Your task to perform on an android device: Open settings on Google Maps Image 0: 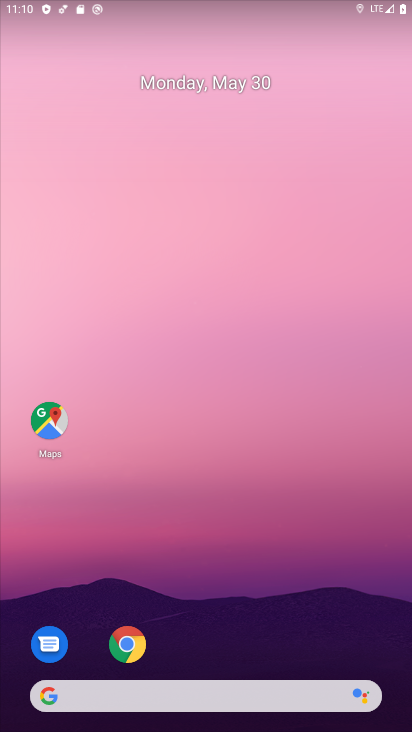
Step 0: press home button
Your task to perform on an android device: Open settings on Google Maps Image 1: 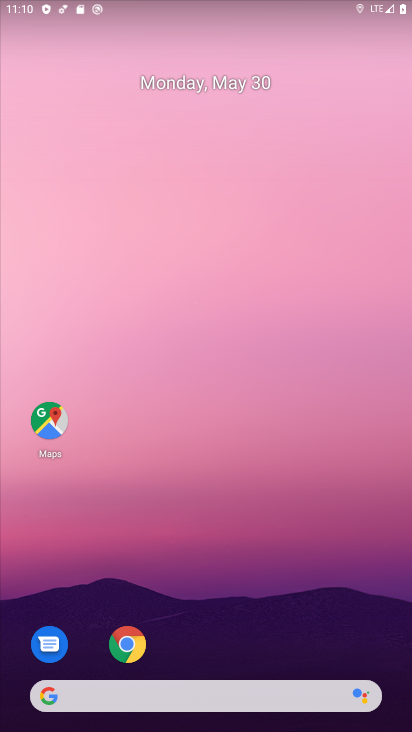
Step 1: drag from (266, 542) to (268, 231)
Your task to perform on an android device: Open settings on Google Maps Image 2: 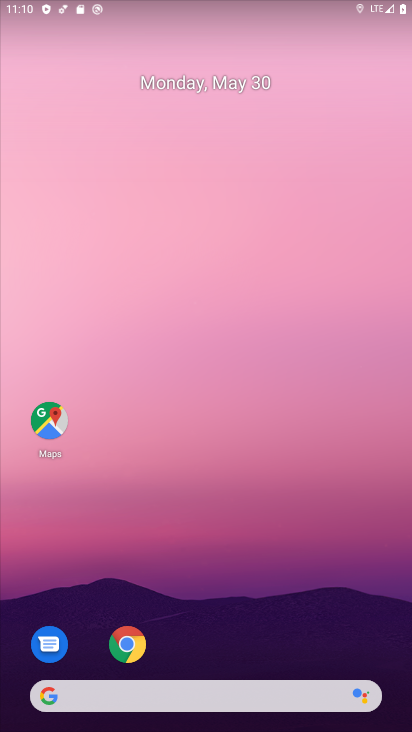
Step 2: click (60, 409)
Your task to perform on an android device: Open settings on Google Maps Image 3: 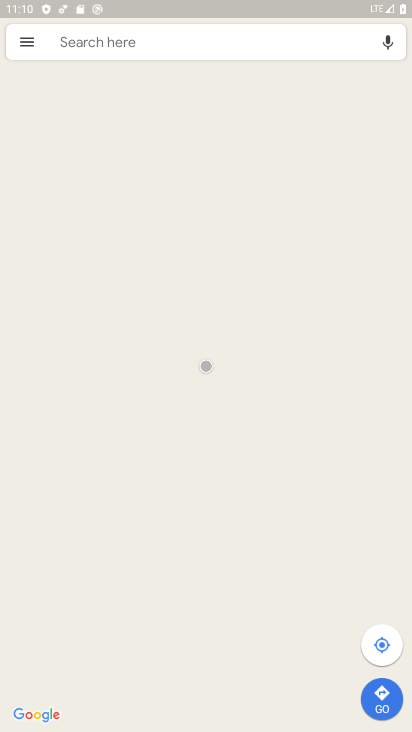
Step 3: click (25, 46)
Your task to perform on an android device: Open settings on Google Maps Image 4: 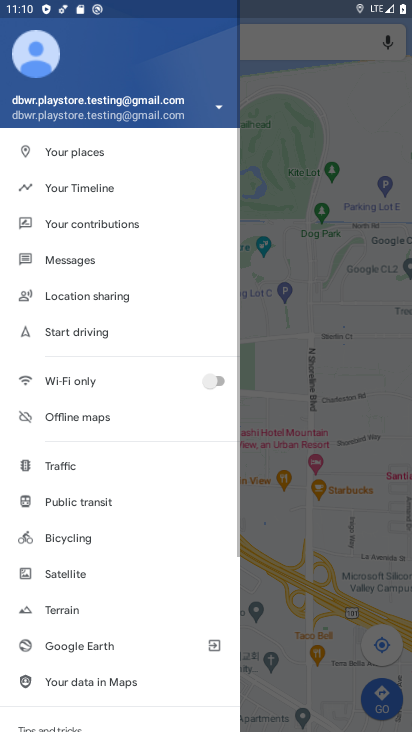
Step 4: drag from (81, 646) to (96, 321)
Your task to perform on an android device: Open settings on Google Maps Image 5: 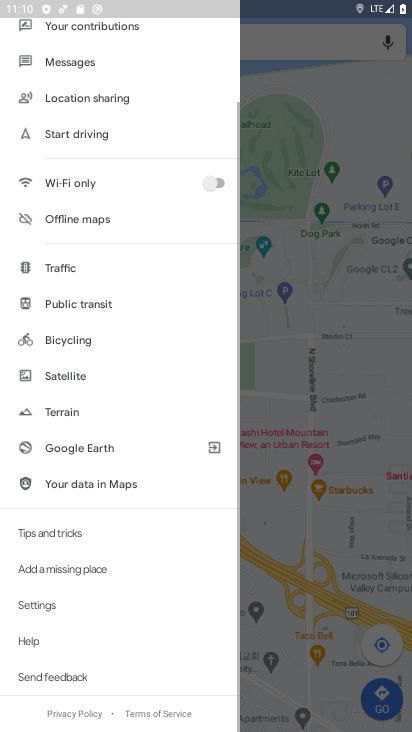
Step 5: click (24, 607)
Your task to perform on an android device: Open settings on Google Maps Image 6: 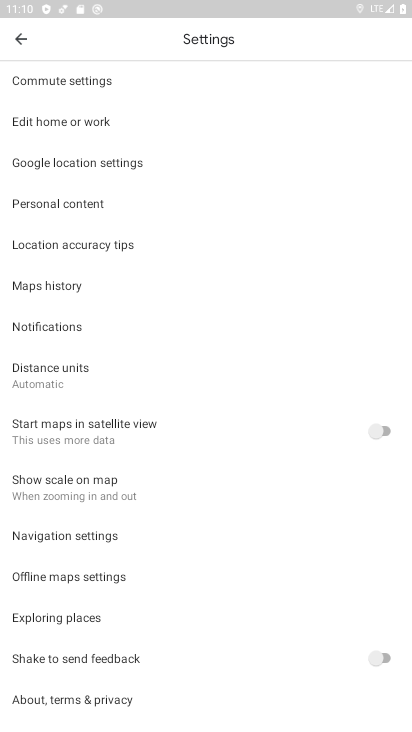
Step 6: task complete